Your task to perform on an android device: turn on airplane mode Image 0: 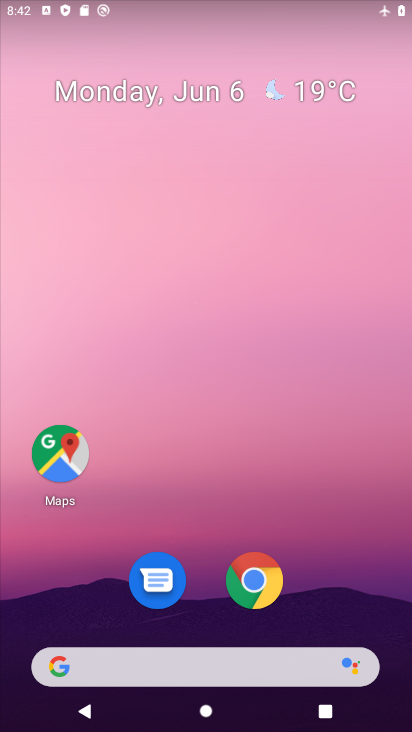
Step 0: drag from (272, 663) to (317, 46)
Your task to perform on an android device: turn on airplane mode Image 1: 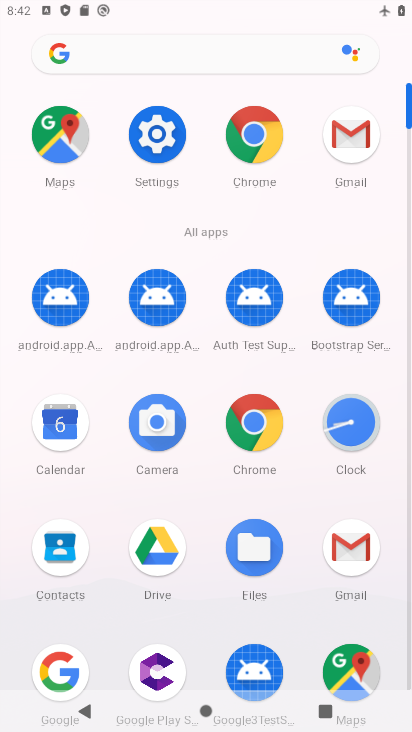
Step 1: click (158, 154)
Your task to perform on an android device: turn on airplane mode Image 2: 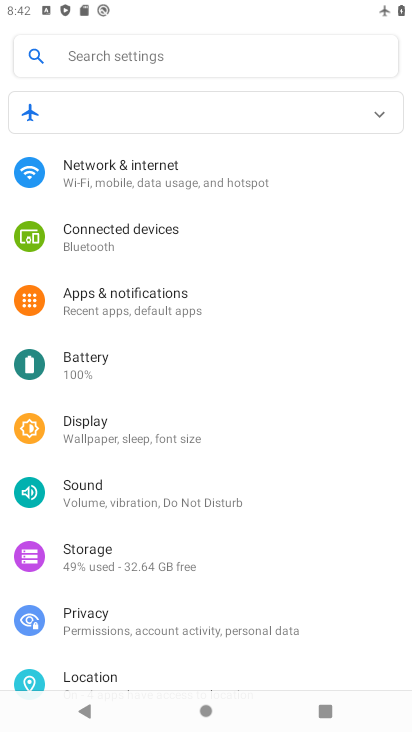
Step 2: click (158, 176)
Your task to perform on an android device: turn on airplane mode Image 3: 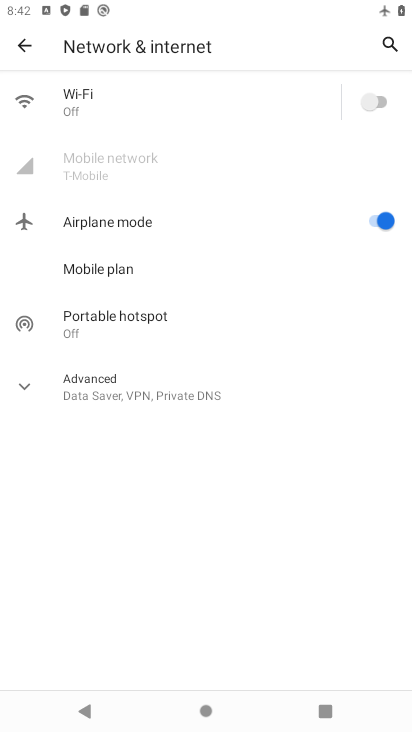
Step 3: task complete